Your task to perform on an android device: Open Chrome and go to the settings page Image 0: 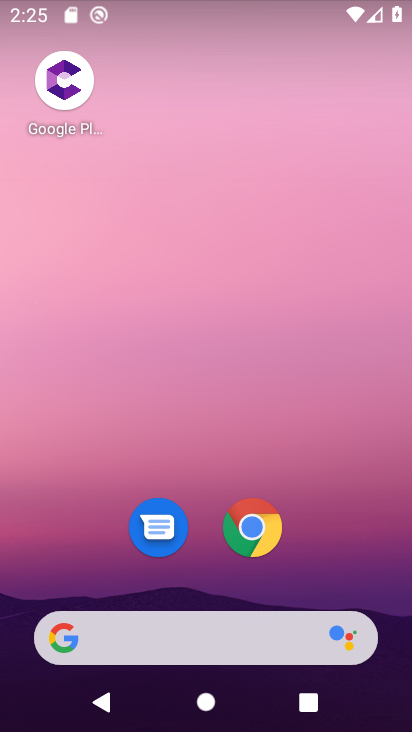
Step 0: click (253, 528)
Your task to perform on an android device: Open Chrome and go to the settings page Image 1: 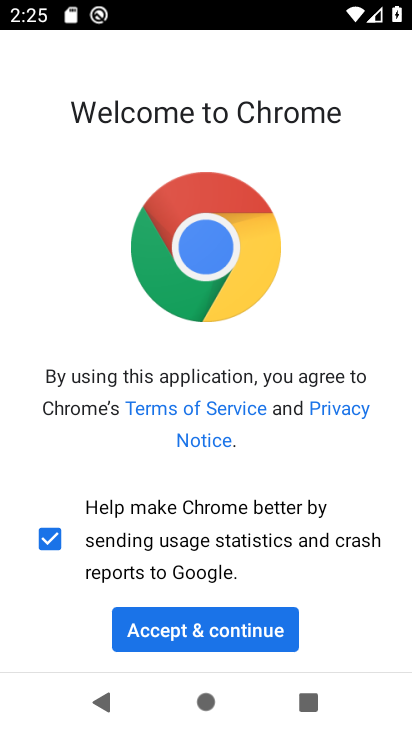
Step 1: click (217, 625)
Your task to perform on an android device: Open Chrome and go to the settings page Image 2: 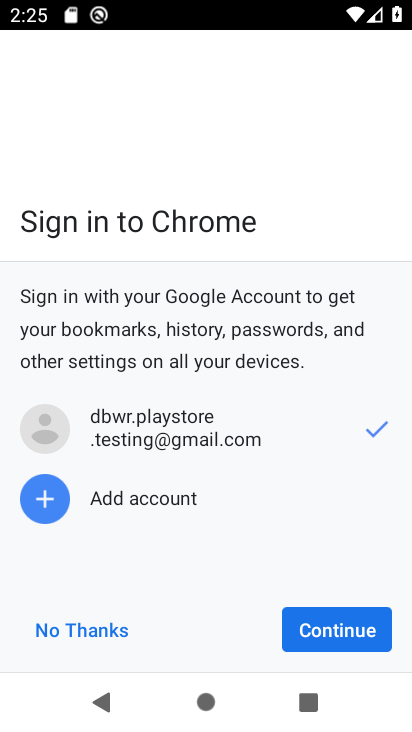
Step 2: click (54, 630)
Your task to perform on an android device: Open Chrome and go to the settings page Image 3: 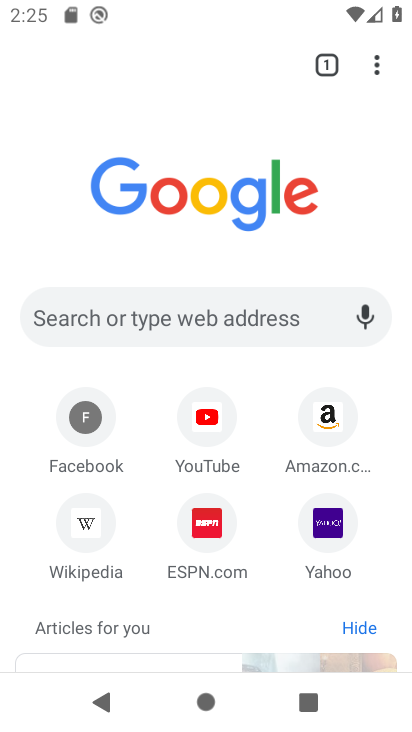
Step 3: click (377, 67)
Your task to perform on an android device: Open Chrome and go to the settings page Image 4: 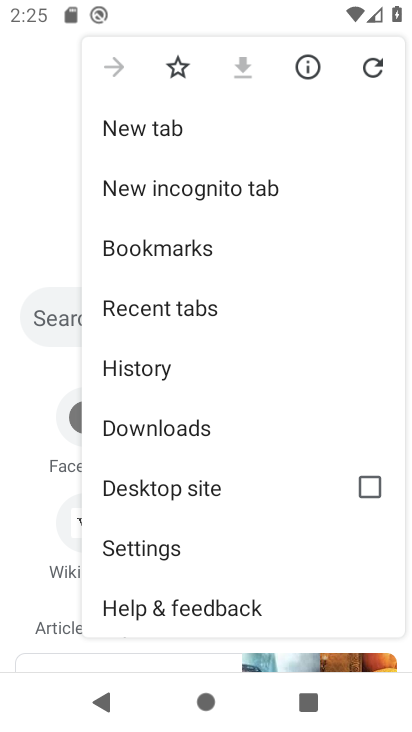
Step 4: click (140, 552)
Your task to perform on an android device: Open Chrome and go to the settings page Image 5: 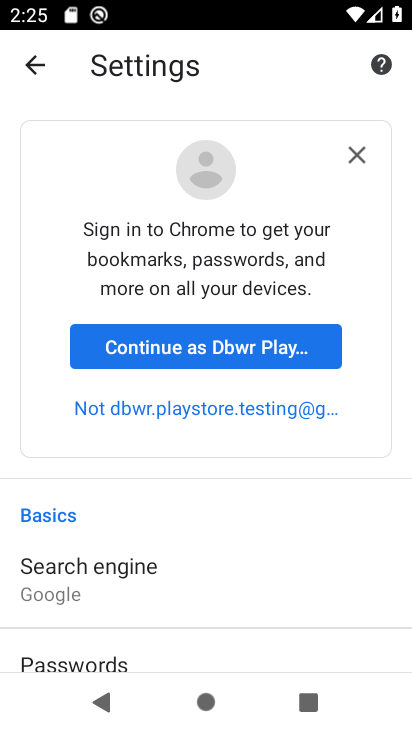
Step 5: task complete